Your task to perform on an android device: Open accessibility settings Image 0: 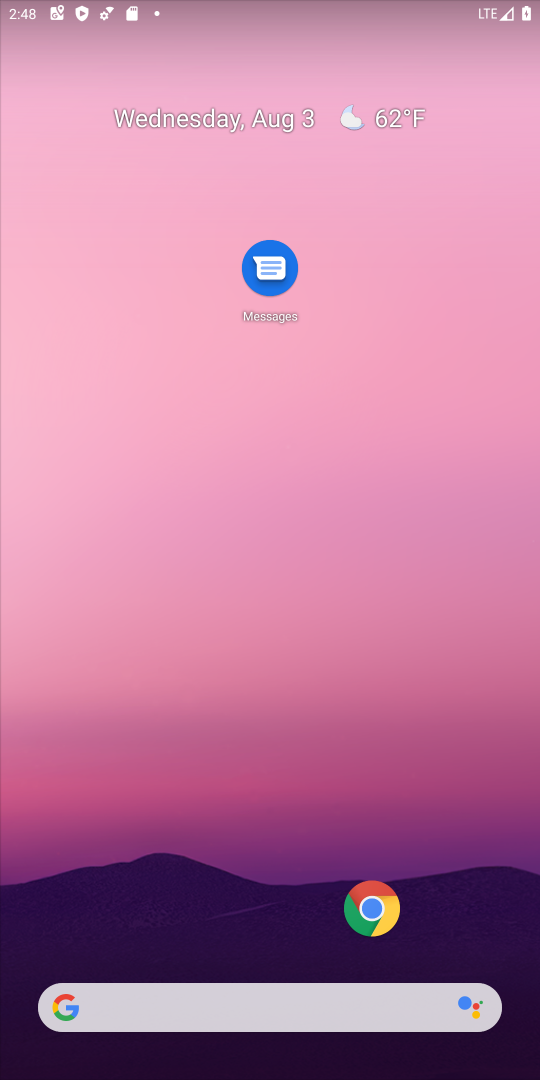
Step 0: drag from (257, 670) to (279, 338)
Your task to perform on an android device: Open accessibility settings Image 1: 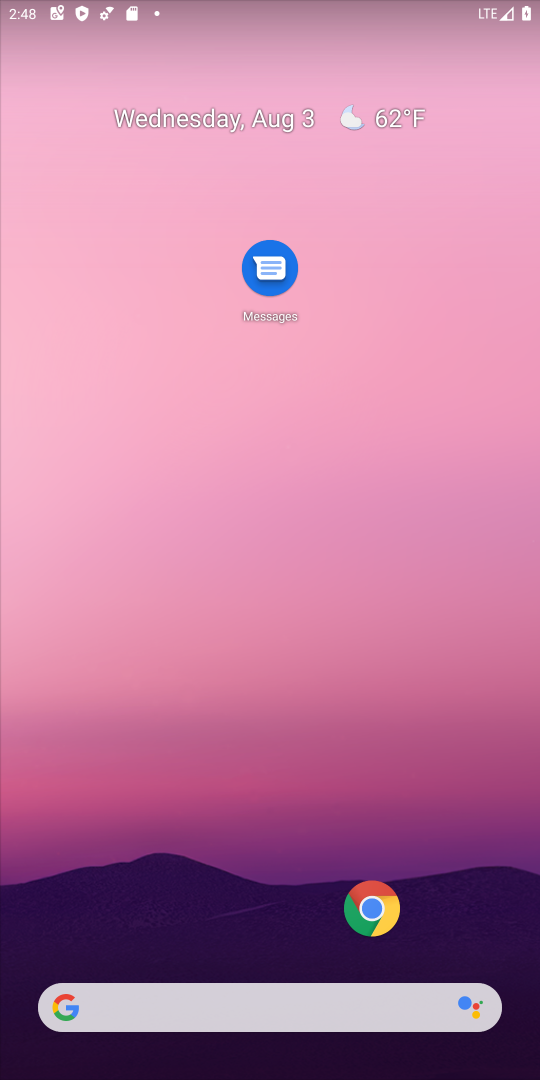
Step 1: drag from (311, 1059) to (304, 80)
Your task to perform on an android device: Open accessibility settings Image 2: 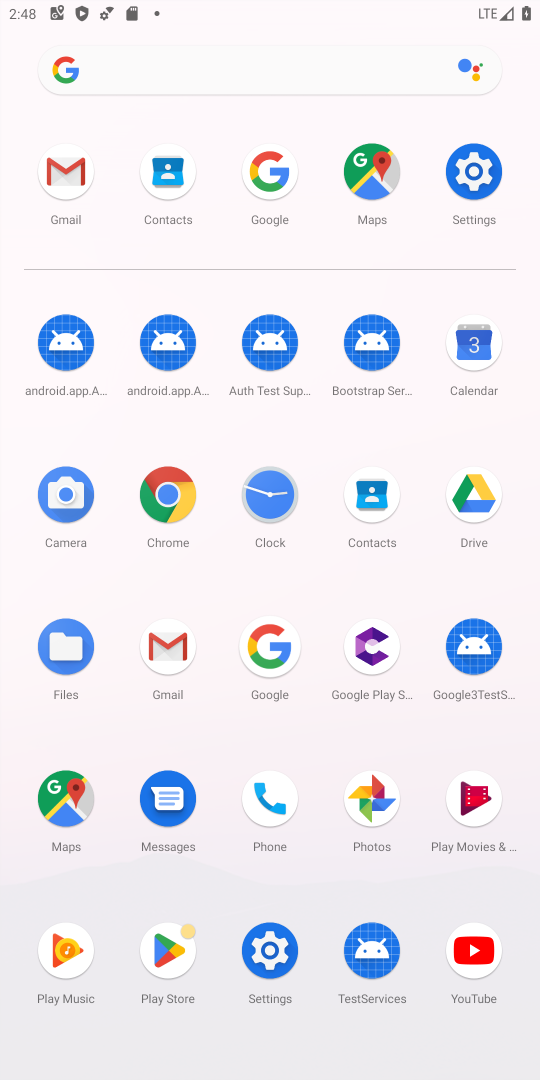
Step 2: click (473, 181)
Your task to perform on an android device: Open accessibility settings Image 3: 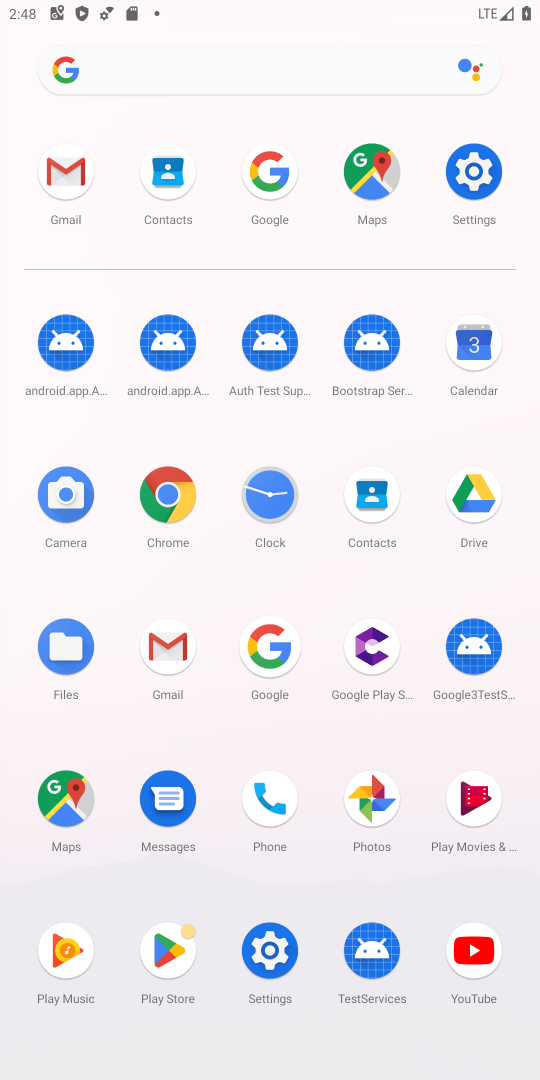
Step 3: click (473, 181)
Your task to perform on an android device: Open accessibility settings Image 4: 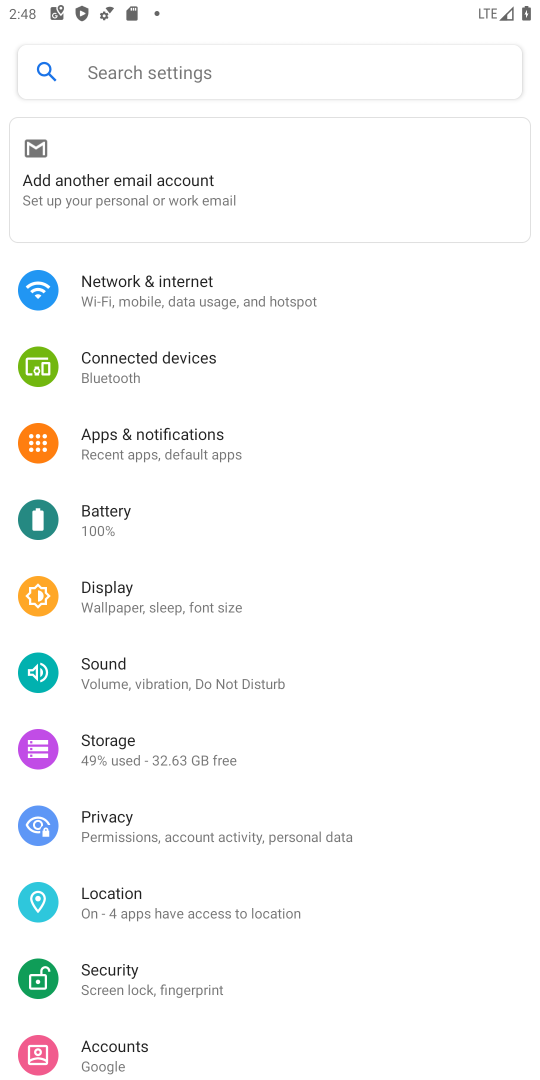
Step 4: drag from (236, 999) to (247, 11)
Your task to perform on an android device: Open accessibility settings Image 5: 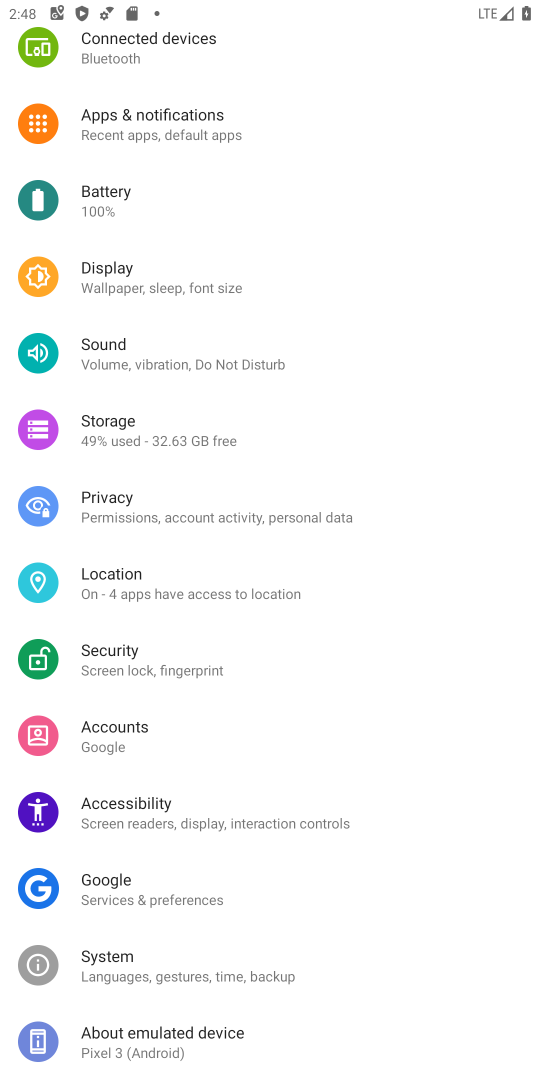
Step 5: click (223, 826)
Your task to perform on an android device: Open accessibility settings Image 6: 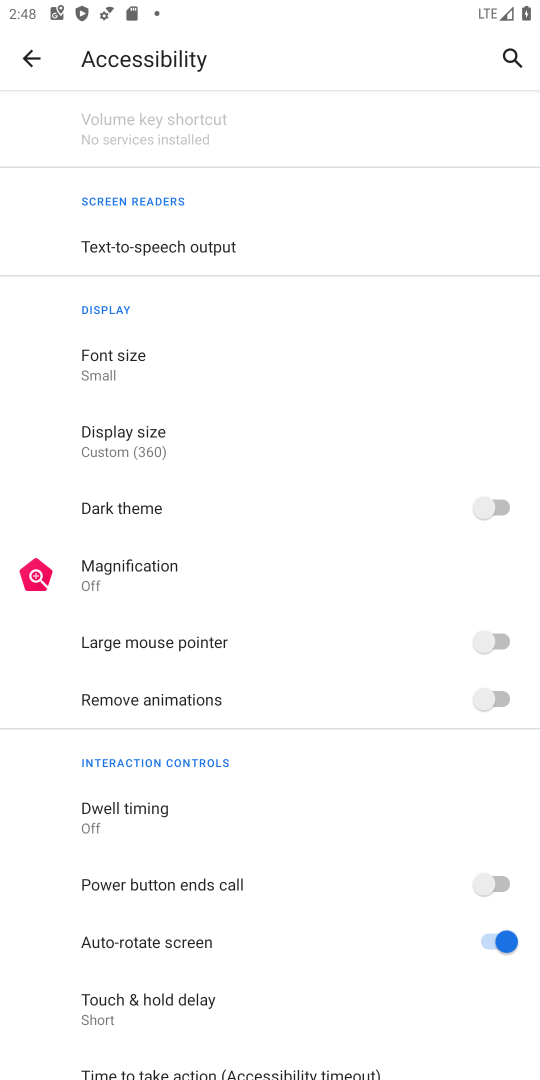
Step 6: task complete